Your task to perform on an android device: turn off location history Image 0: 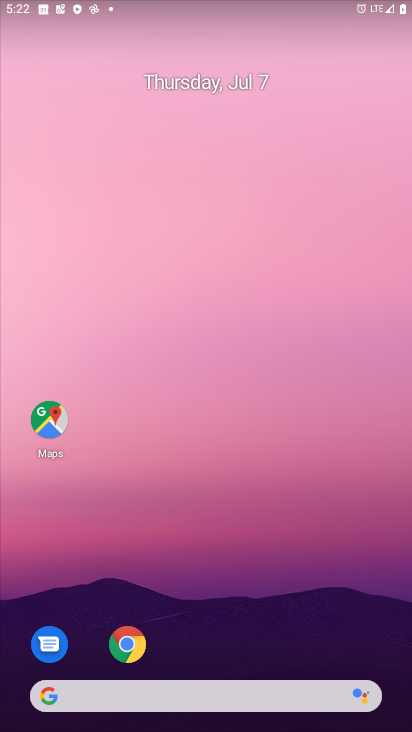
Step 0: drag from (235, 647) to (154, 125)
Your task to perform on an android device: turn off location history Image 1: 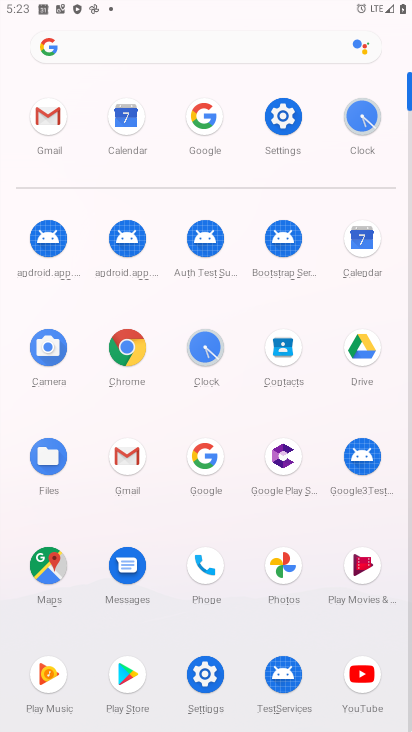
Step 1: click (283, 116)
Your task to perform on an android device: turn off location history Image 2: 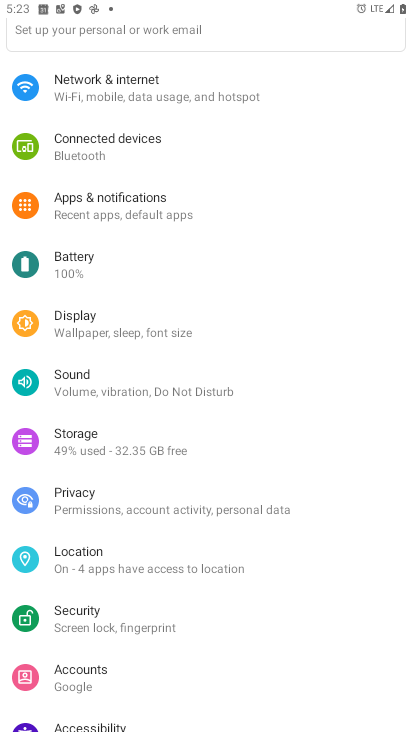
Step 2: click (146, 569)
Your task to perform on an android device: turn off location history Image 3: 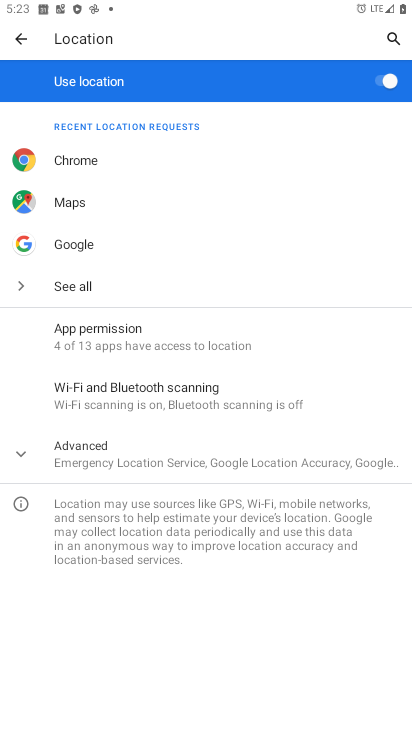
Step 3: click (122, 454)
Your task to perform on an android device: turn off location history Image 4: 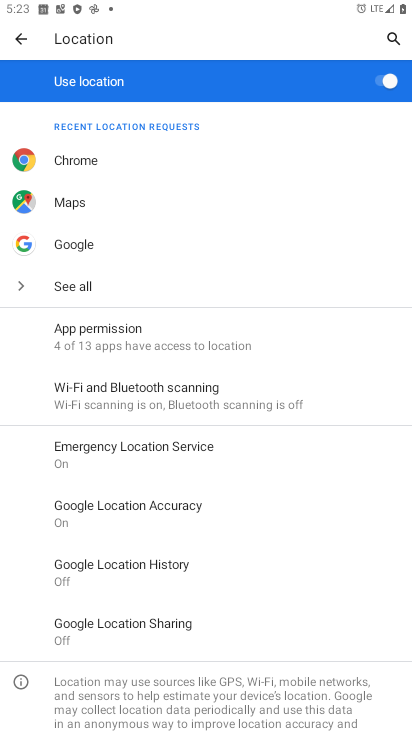
Step 4: task complete